Your task to perform on an android device: add a contact Image 0: 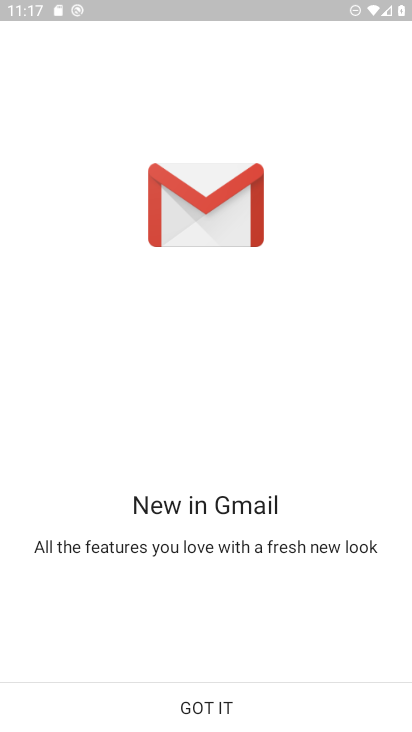
Step 0: press home button
Your task to perform on an android device: add a contact Image 1: 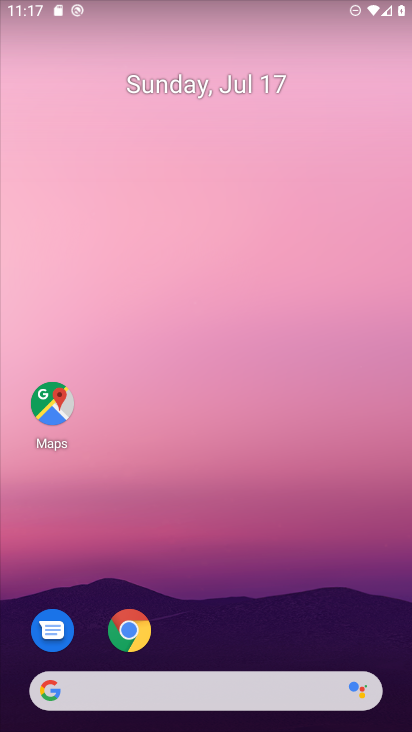
Step 1: drag from (213, 314) to (182, 118)
Your task to perform on an android device: add a contact Image 2: 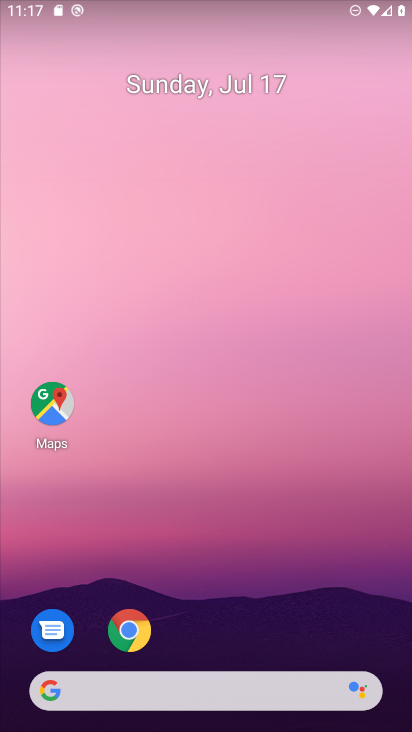
Step 2: drag from (187, 611) to (214, 151)
Your task to perform on an android device: add a contact Image 3: 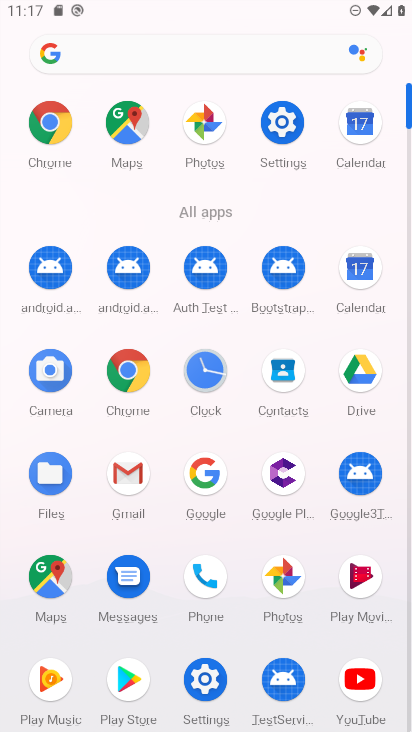
Step 3: click (286, 409)
Your task to perform on an android device: add a contact Image 4: 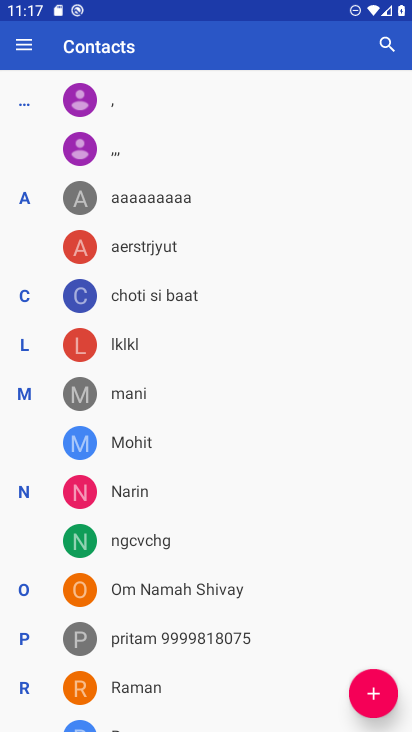
Step 4: click (373, 699)
Your task to perform on an android device: add a contact Image 5: 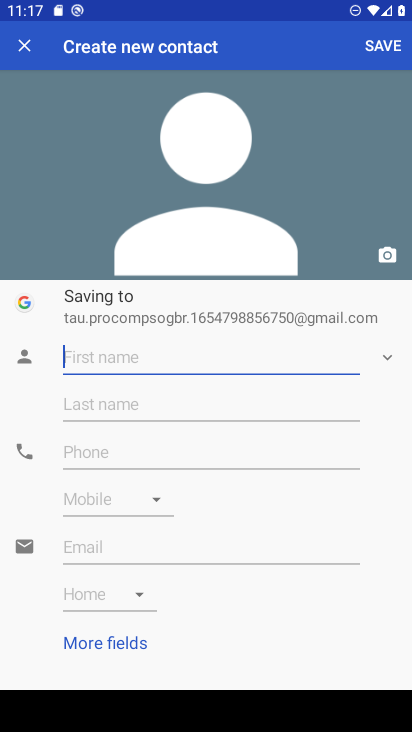
Step 5: type "Shastri"
Your task to perform on an android device: add a contact Image 6: 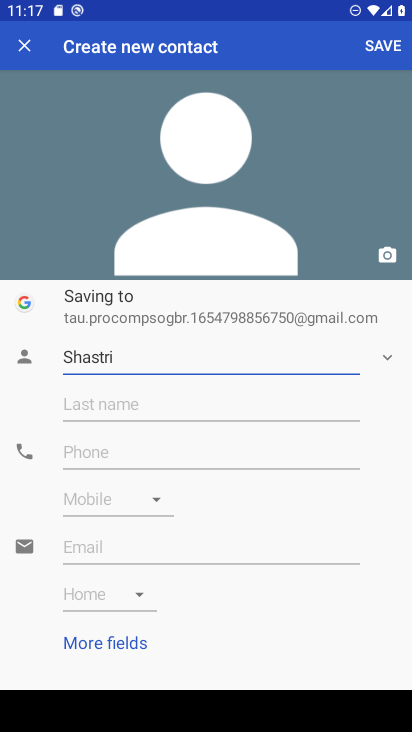
Step 6: click (274, 447)
Your task to perform on an android device: add a contact Image 7: 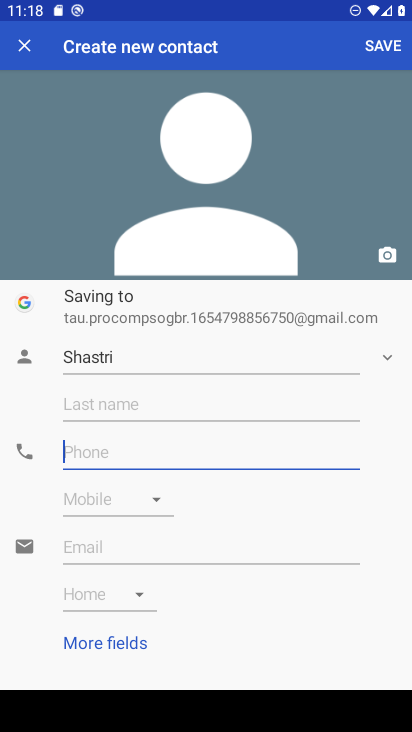
Step 7: type "6565676788"
Your task to perform on an android device: add a contact Image 8: 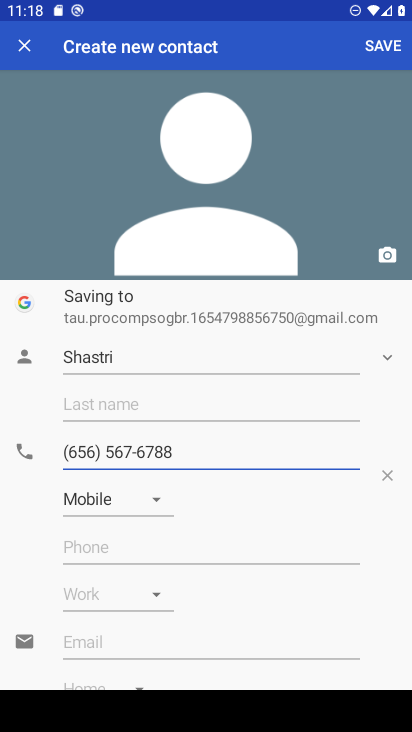
Step 8: click (383, 44)
Your task to perform on an android device: add a contact Image 9: 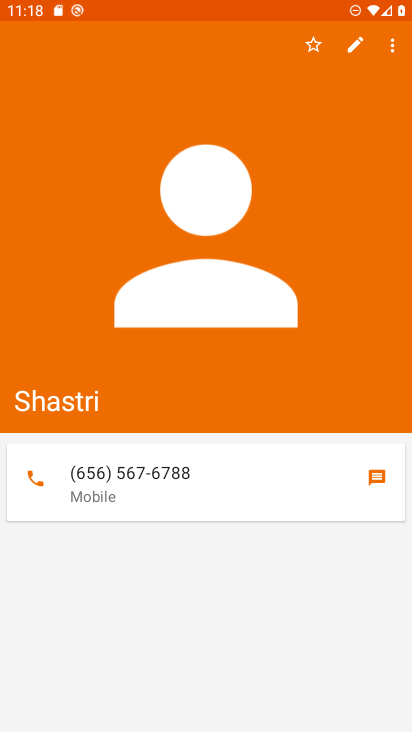
Step 9: task complete